Your task to perform on an android device: refresh tabs in the chrome app Image 0: 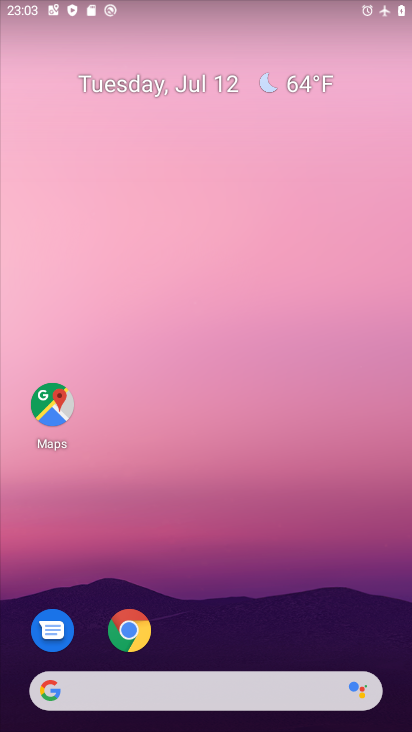
Step 0: drag from (209, 654) to (193, 9)
Your task to perform on an android device: refresh tabs in the chrome app Image 1: 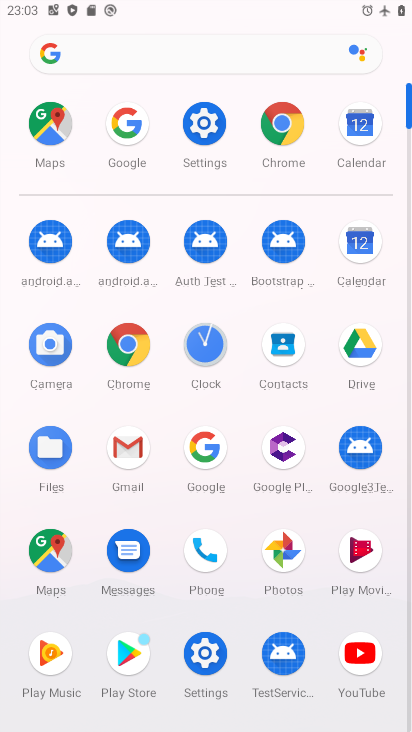
Step 1: click (128, 359)
Your task to perform on an android device: refresh tabs in the chrome app Image 2: 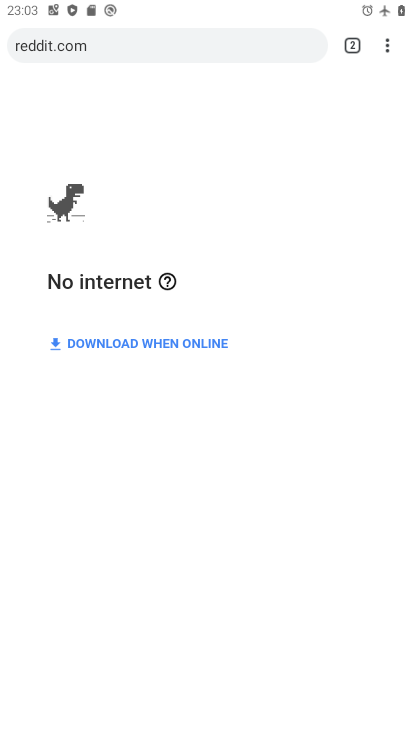
Step 2: click (389, 48)
Your task to perform on an android device: refresh tabs in the chrome app Image 3: 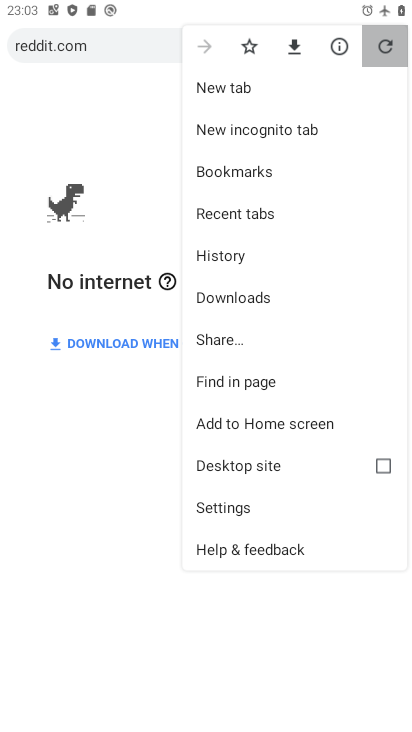
Step 3: click (384, 50)
Your task to perform on an android device: refresh tabs in the chrome app Image 4: 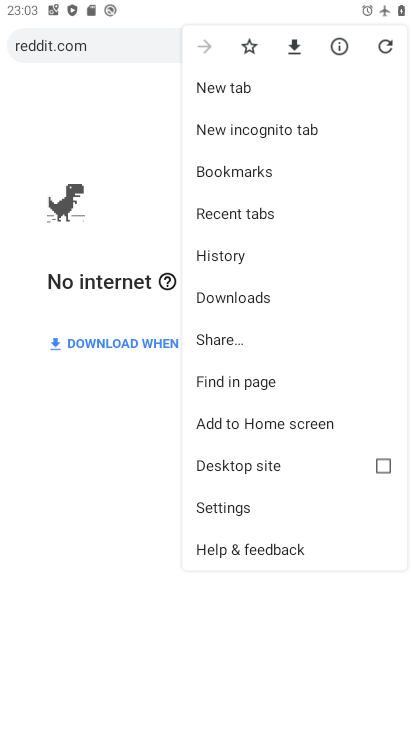
Step 4: task complete